Your task to perform on an android device: Do I have any events this weekend? Image 0: 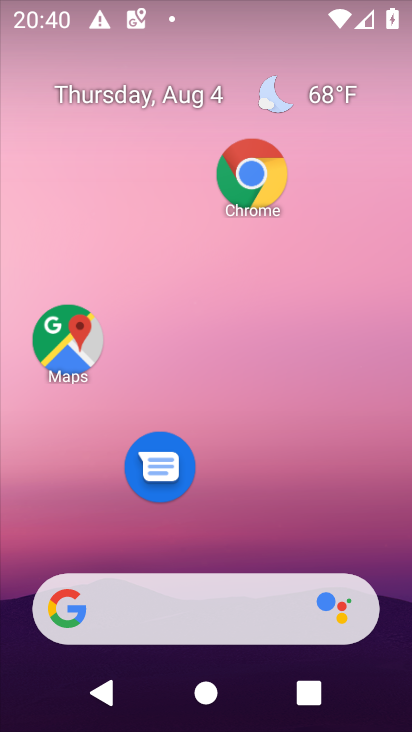
Step 0: drag from (381, 677) to (333, 112)
Your task to perform on an android device: Do I have any events this weekend? Image 1: 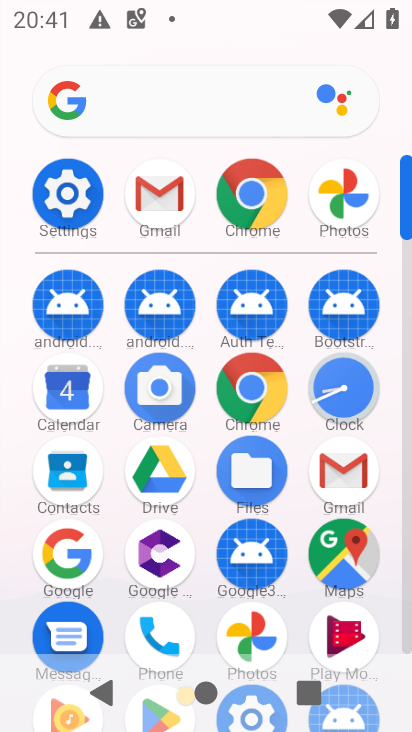
Step 1: drag from (307, 577) to (317, 362)
Your task to perform on an android device: Do I have any events this weekend? Image 2: 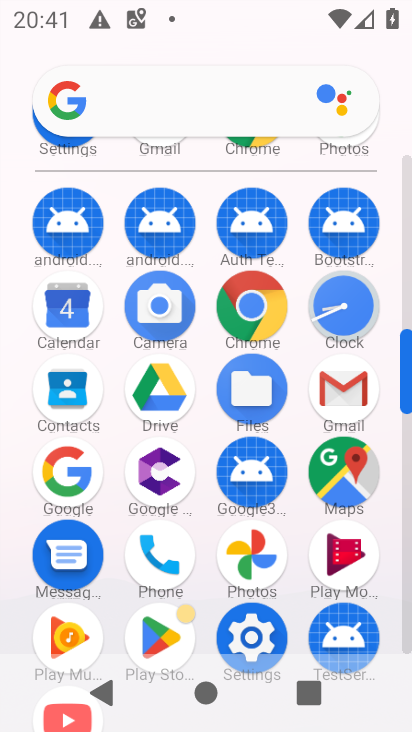
Step 2: click (52, 291)
Your task to perform on an android device: Do I have any events this weekend? Image 3: 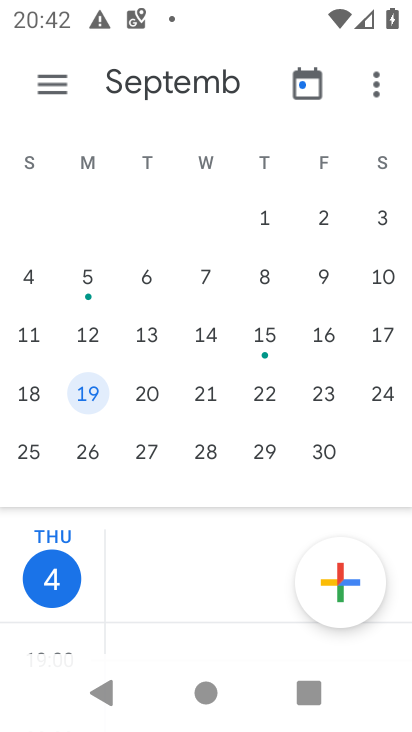
Step 3: drag from (57, 346) to (411, 405)
Your task to perform on an android device: Do I have any events this weekend? Image 4: 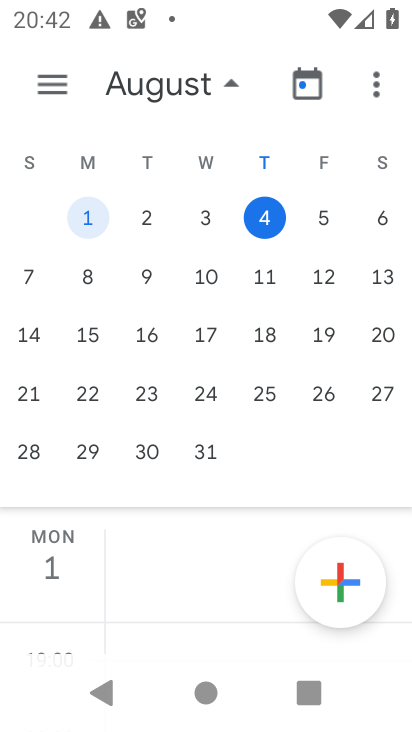
Step 4: click (275, 278)
Your task to perform on an android device: Do I have any events this weekend? Image 5: 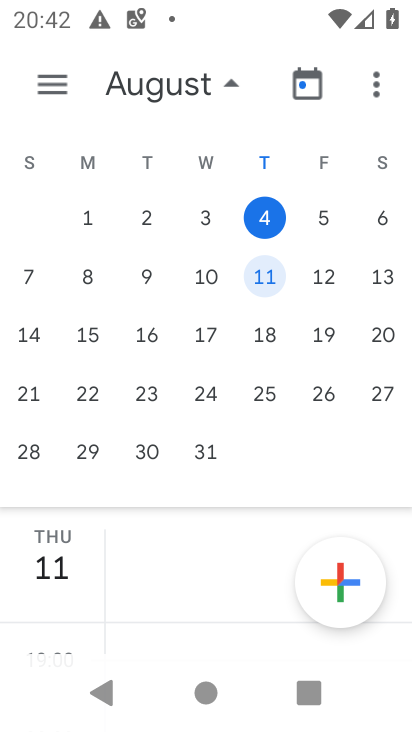
Step 5: task complete